Your task to perform on an android device: Open calendar and show me the first week of next month Image 0: 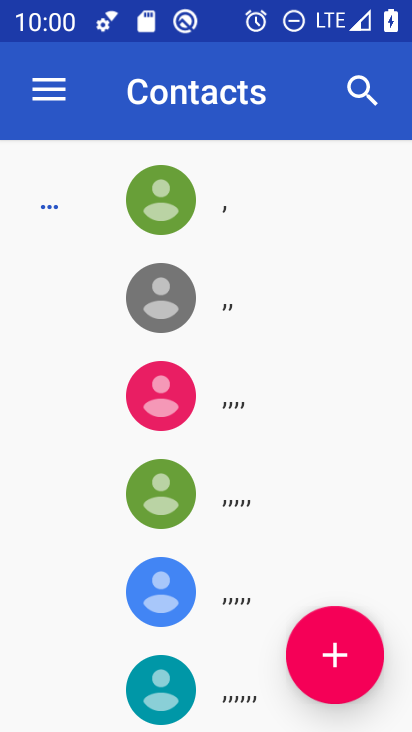
Step 0: press home button
Your task to perform on an android device: Open calendar and show me the first week of next month Image 1: 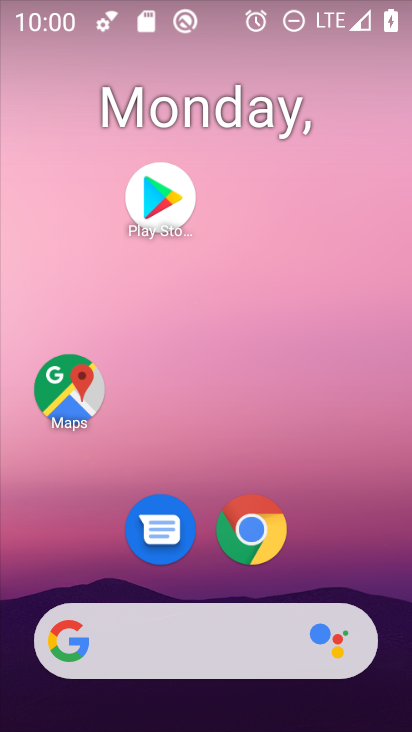
Step 1: drag from (316, 536) to (194, 123)
Your task to perform on an android device: Open calendar and show me the first week of next month Image 2: 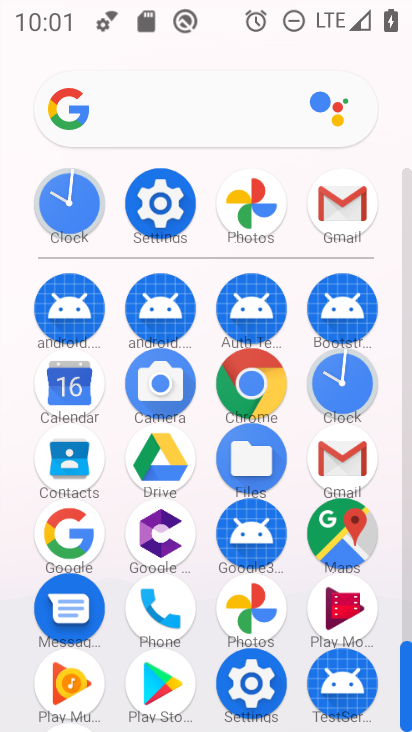
Step 2: click (71, 377)
Your task to perform on an android device: Open calendar and show me the first week of next month Image 3: 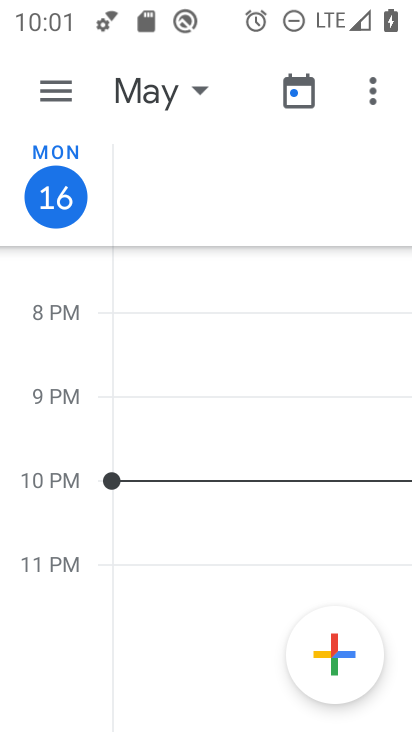
Step 3: click (198, 88)
Your task to perform on an android device: Open calendar and show me the first week of next month Image 4: 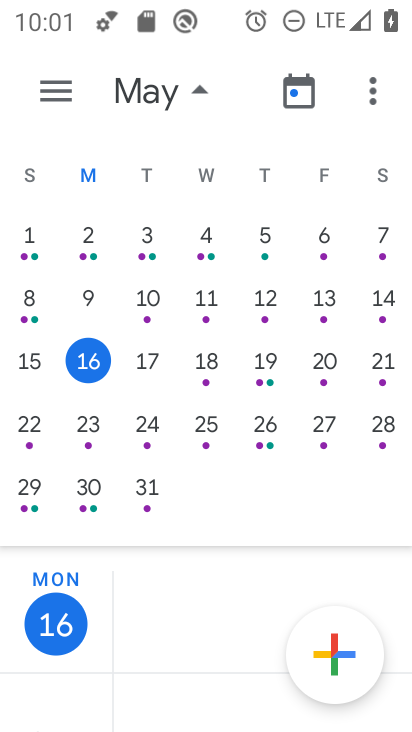
Step 4: drag from (342, 329) to (10, 289)
Your task to perform on an android device: Open calendar and show me the first week of next month Image 5: 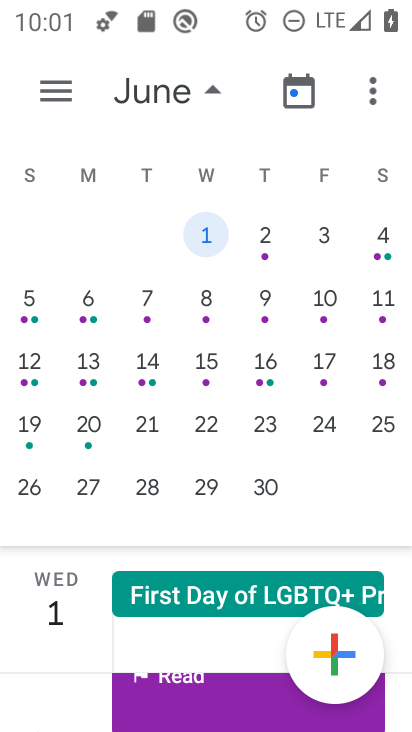
Step 5: click (55, 84)
Your task to perform on an android device: Open calendar and show me the first week of next month Image 6: 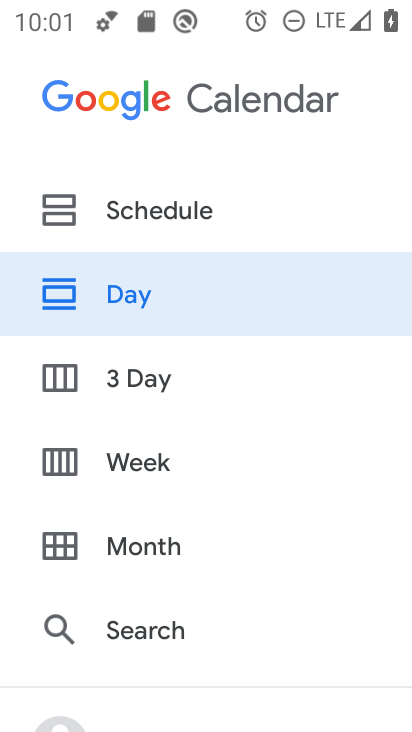
Step 6: click (136, 456)
Your task to perform on an android device: Open calendar and show me the first week of next month Image 7: 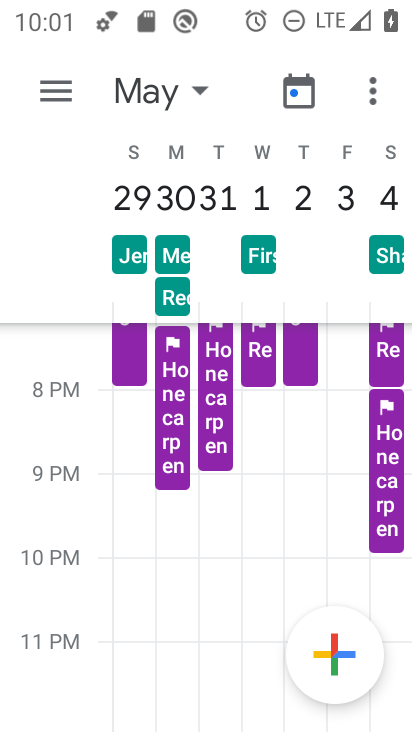
Step 7: click (196, 89)
Your task to perform on an android device: Open calendar and show me the first week of next month Image 8: 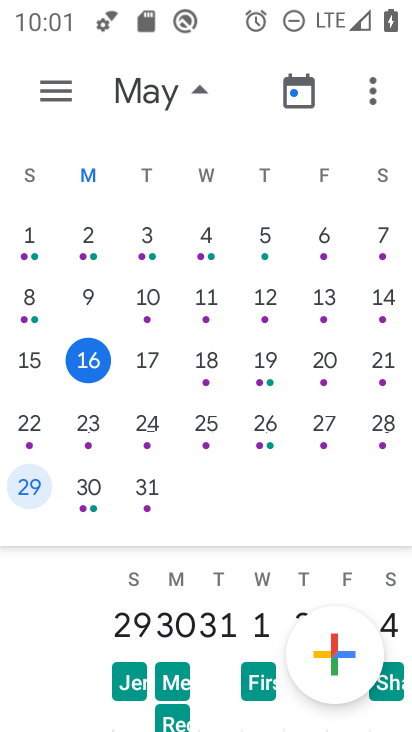
Step 8: task complete